Your task to perform on an android device: Search for the Best selling coffee table on Ikea Image 0: 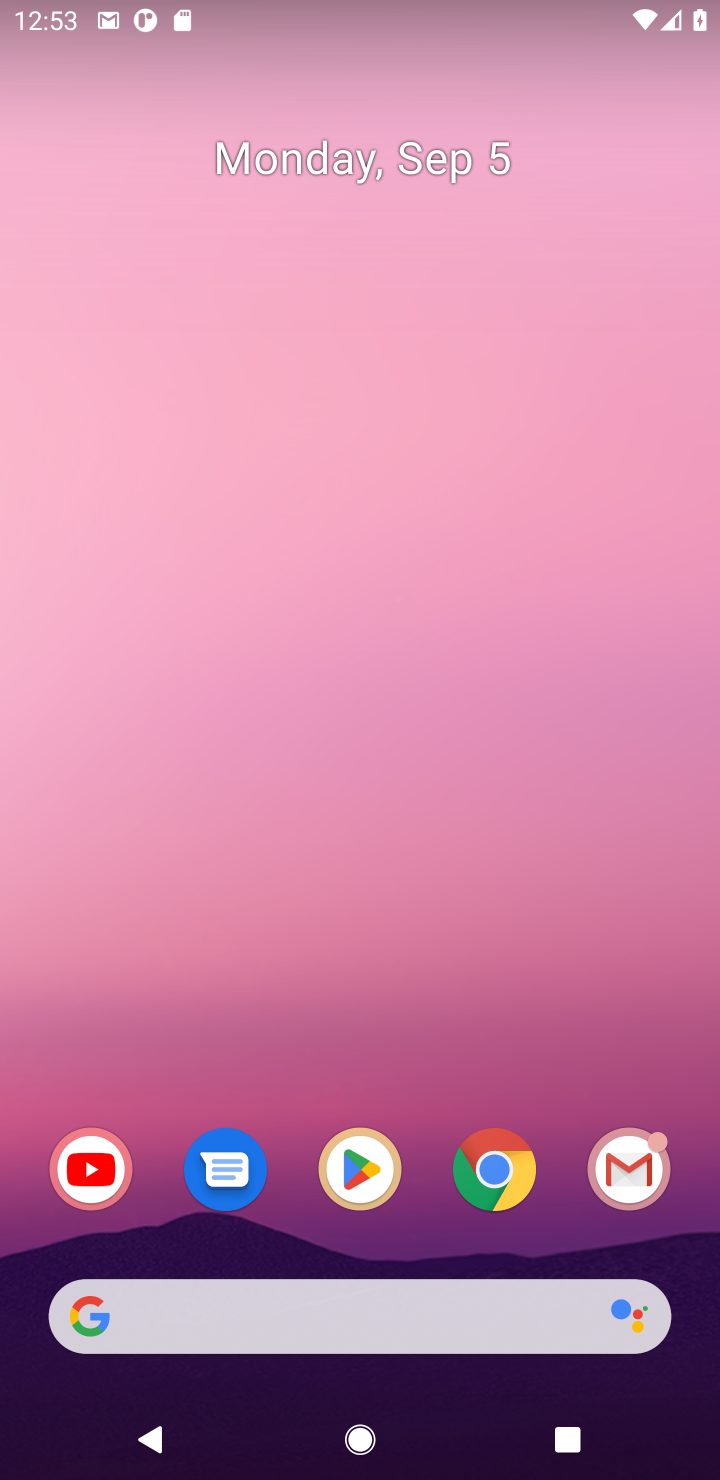
Step 0: click (382, 1213)
Your task to perform on an android device: Search for the Best selling coffee table on Ikea Image 1: 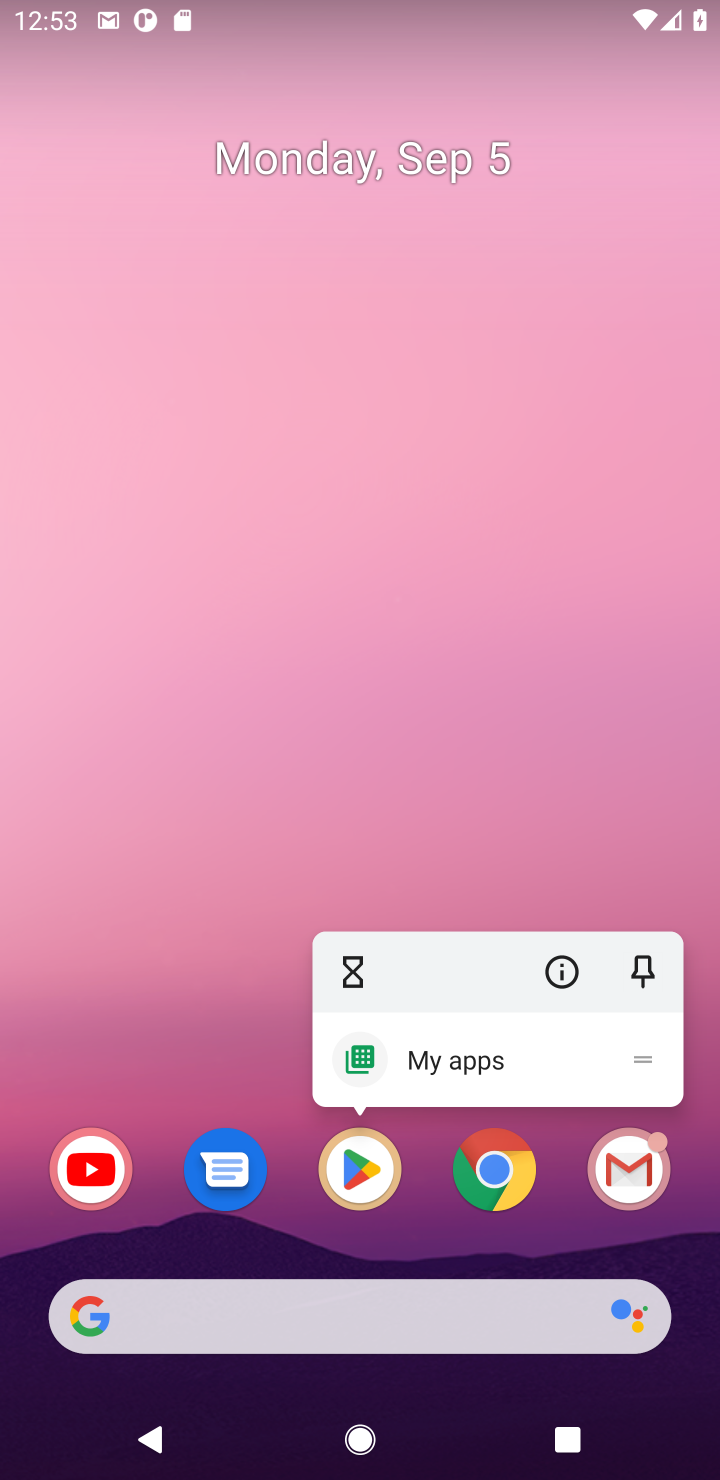
Step 1: click (382, 1213)
Your task to perform on an android device: Search for the Best selling coffee table on Ikea Image 2: 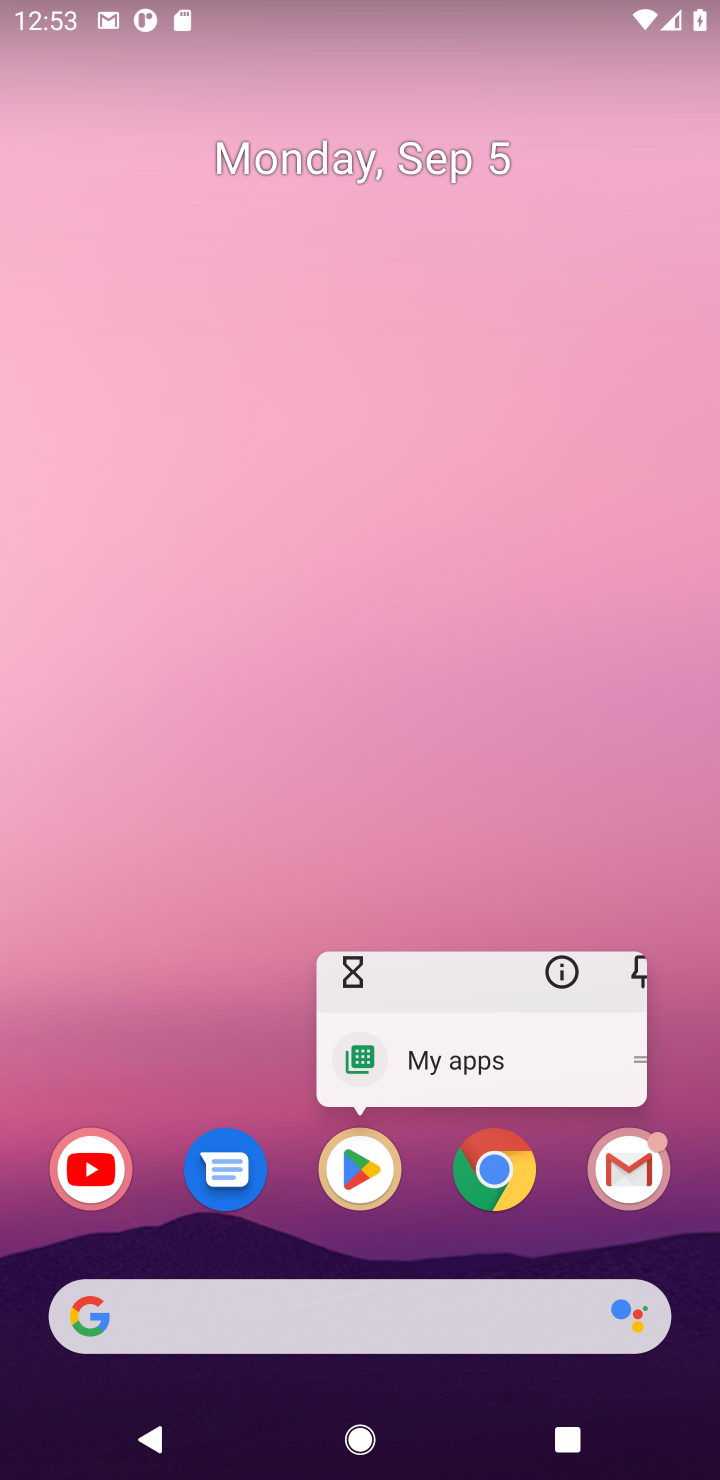
Step 2: click (362, 1201)
Your task to perform on an android device: Search for the Best selling coffee table on Ikea Image 3: 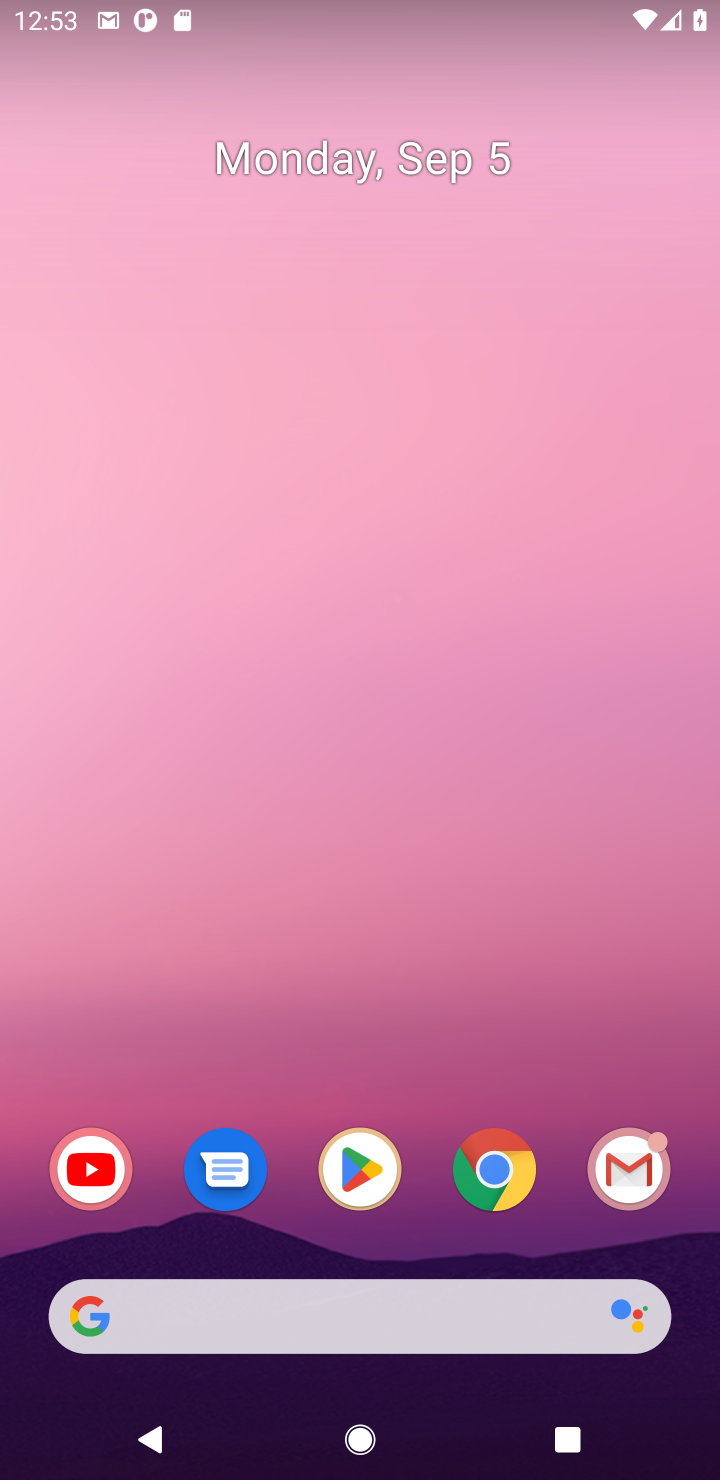
Step 3: task complete